Your task to perform on an android device: Open ESPN.com Image 0: 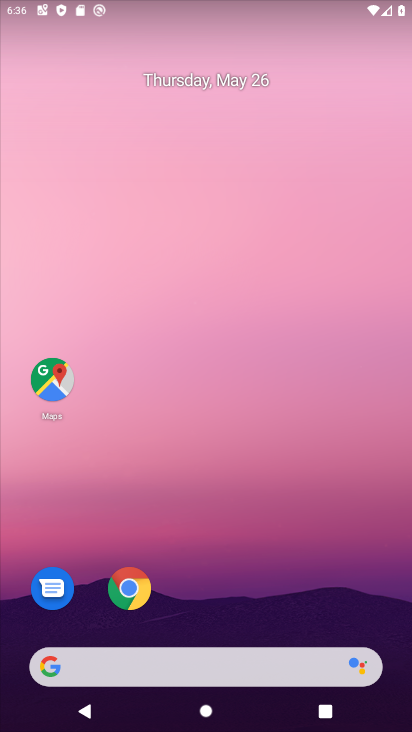
Step 0: drag from (381, 624) to (222, 29)
Your task to perform on an android device: Open ESPN.com Image 1: 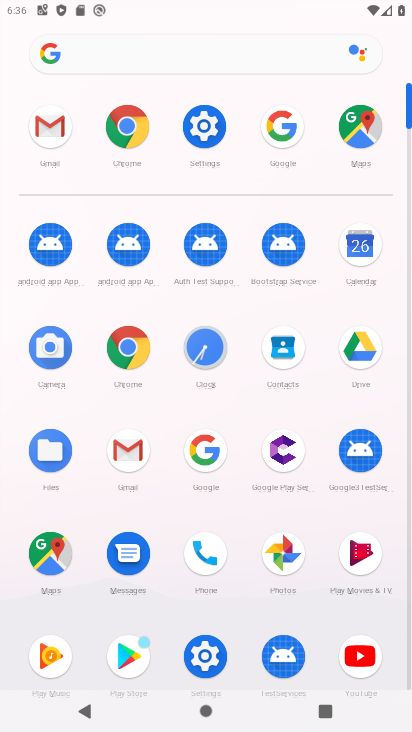
Step 1: click (226, 456)
Your task to perform on an android device: Open ESPN.com Image 2: 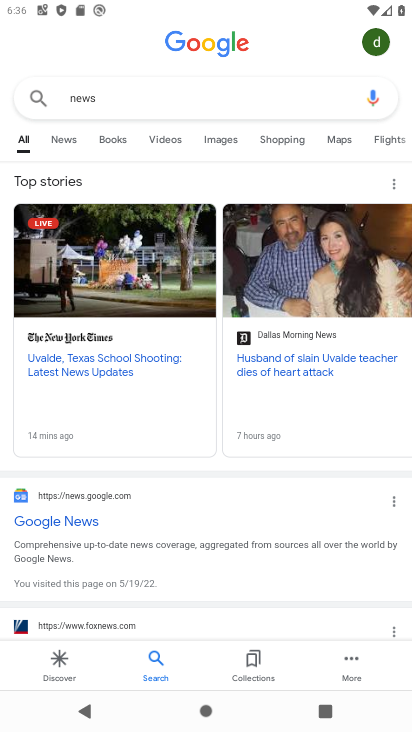
Step 2: press back button
Your task to perform on an android device: Open ESPN.com Image 3: 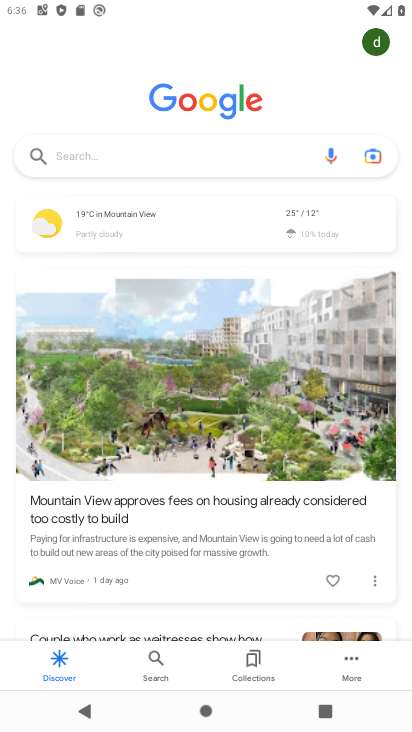
Step 3: click (119, 159)
Your task to perform on an android device: Open ESPN.com Image 4: 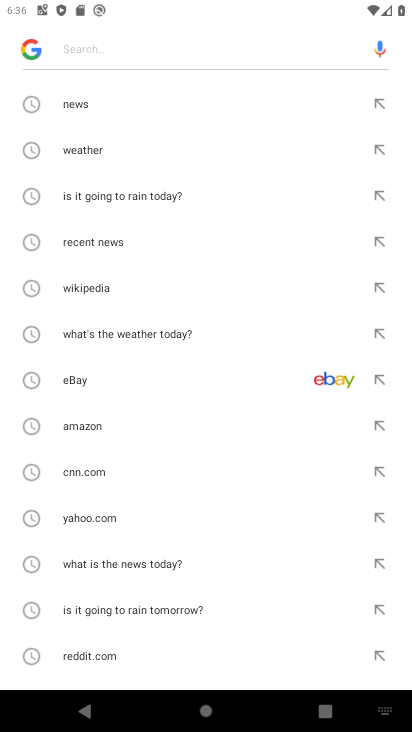
Step 4: drag from (110, 580) to (69, 197)
Your task to perform on an android device: Open ESPN.com Image 5: 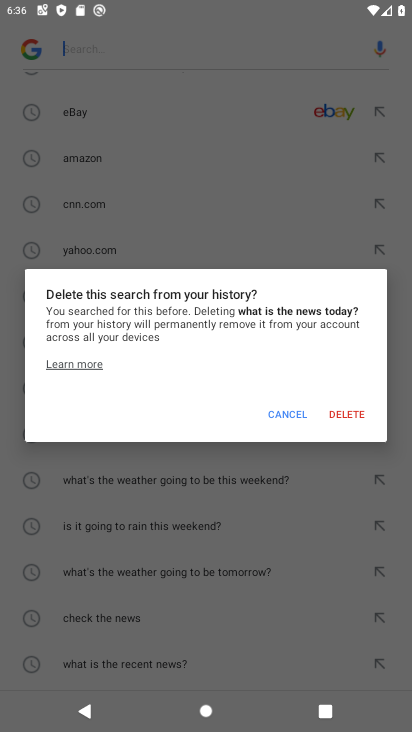
Step 5: click (289, 411)
Your task to perform on an android device: Open ESPN.com Image 6: 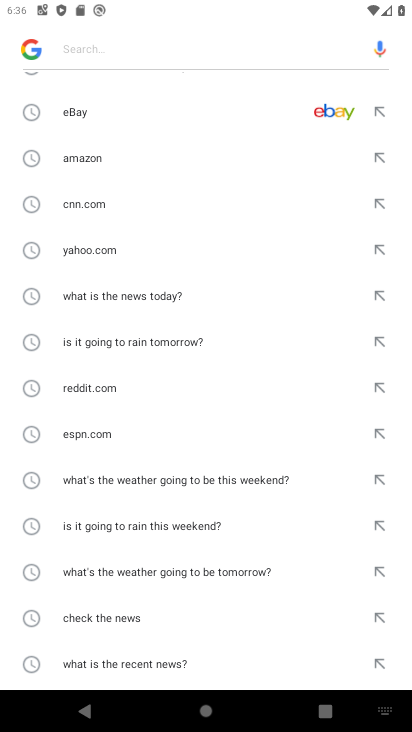
Step 6: click (119, 445)
Your task to perform on an android device: Open ESPN.com Image 7: 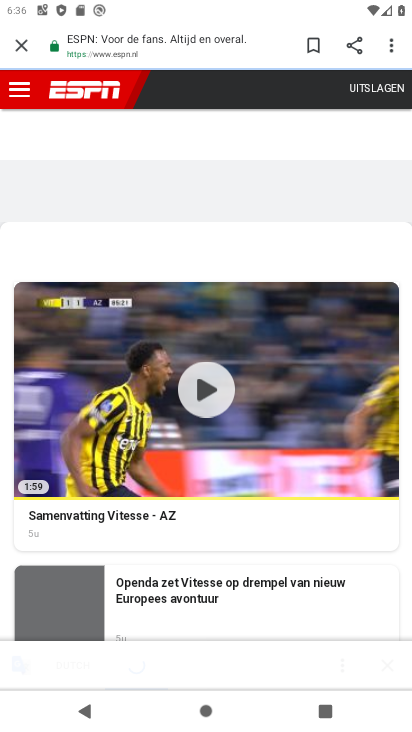
Step 7: task complete